Your task to perform on an android device: stop showing notifications on the lock screen Image 0: 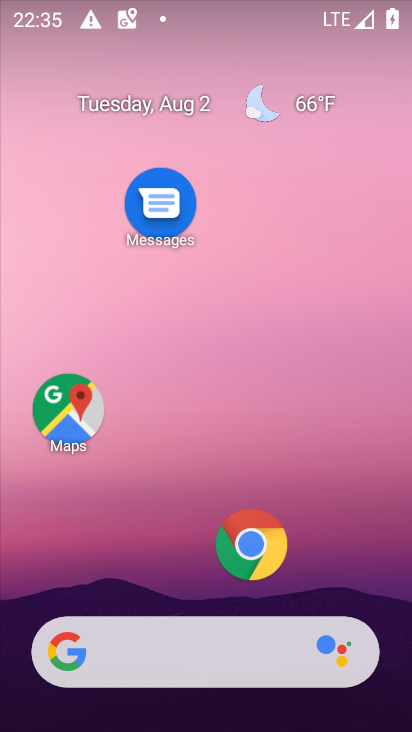
Step 0: drag from (221, 285) to (247, 125)
Your task to perform on an android device: stop showing notifications on the lock screen Image 1: 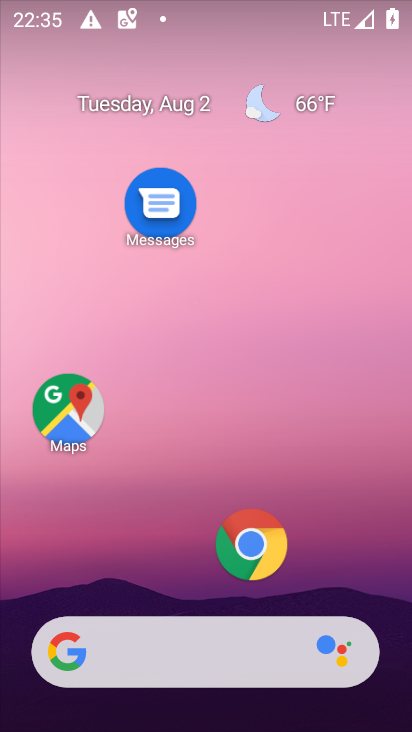
Step 1: drag from (191, 581) to (251, 172)
Your task to perform on an android device: stop showing notifications on the lock screen Image 2: 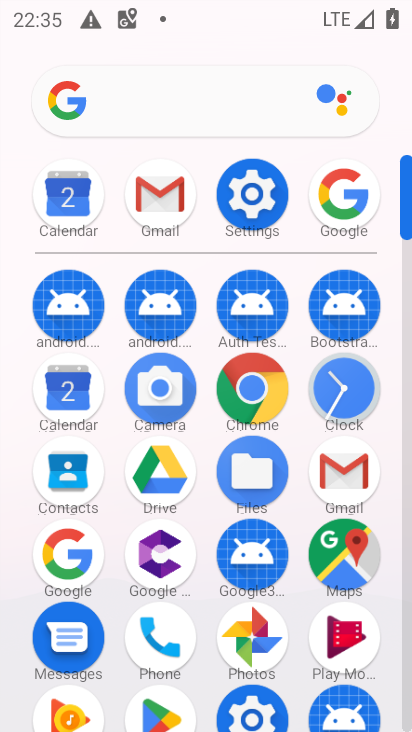
Step 2: click (264, 220)
Your task to perform on an android device: stop showing notifications on the lock screen Image 3: 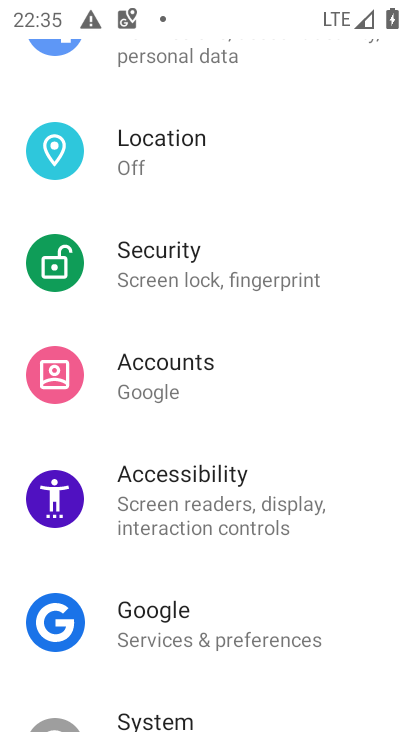
Step 3: drag from (191, 254) to (252, 685)
Your task to perform on an android device: stop showing notifications on the lock screen Image 4: 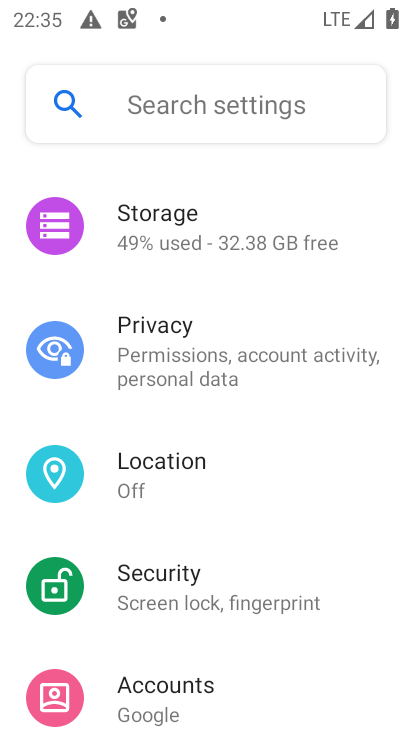
Step 4: drag from (228, 487) to (227, 248)
Your task to perform on an android device: stop showing notifications on the lock screen Image 5: 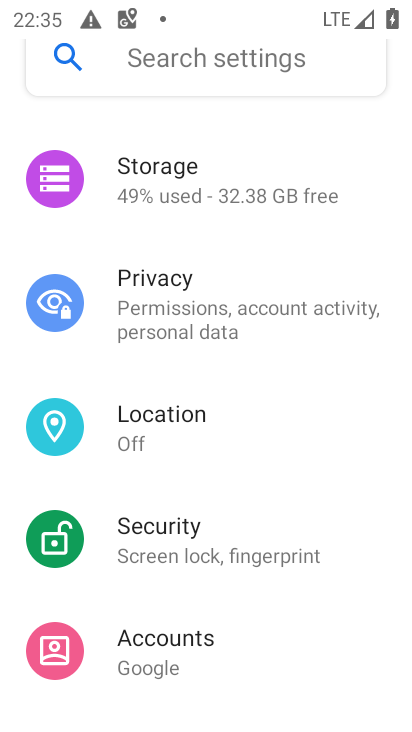
Step 5: drag from (247, 591) to (270, 235)
Your task to perform on an android device: stop showing notifications on the lock screen Image 6: 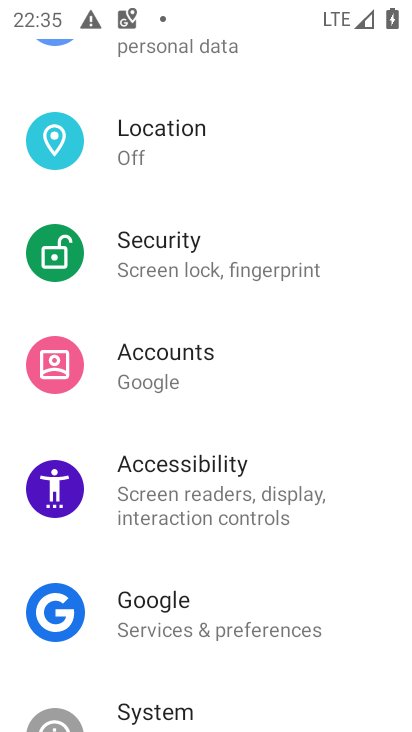
Step 6: drag from (170, 178) to (205, 663)
Your task to perform on an android device: stop showing notifications on the lock screen Image 7: 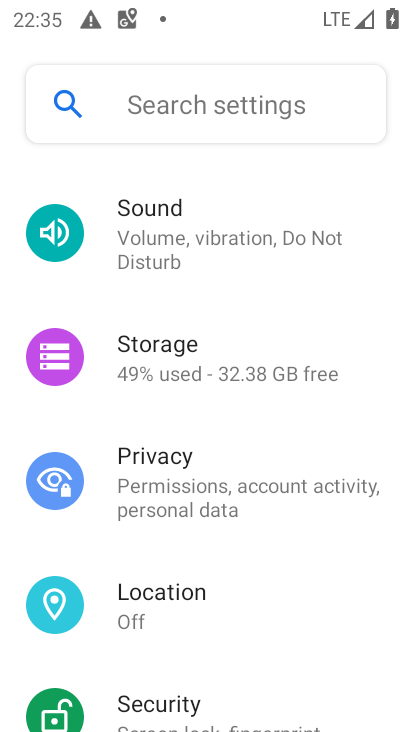
Step 7: drag from (259, 324) to (297, 688)
Your task to perform on an android device: stop showing notifications on the lock screen Image 8: 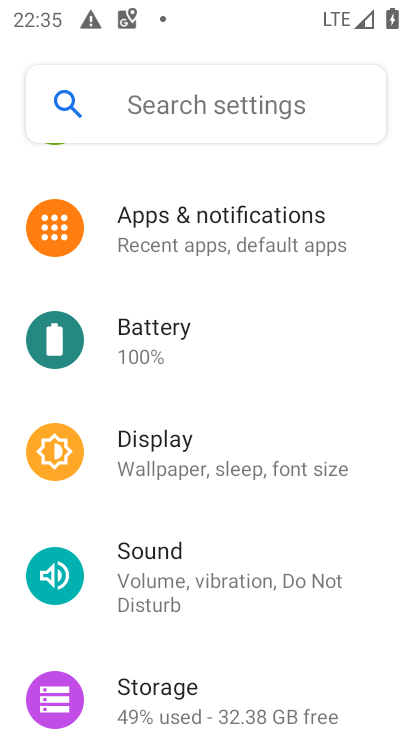
Step 8: click (253, 231)
Your task to perform on an android device: stop showing notifications on the lock screen Image 9: 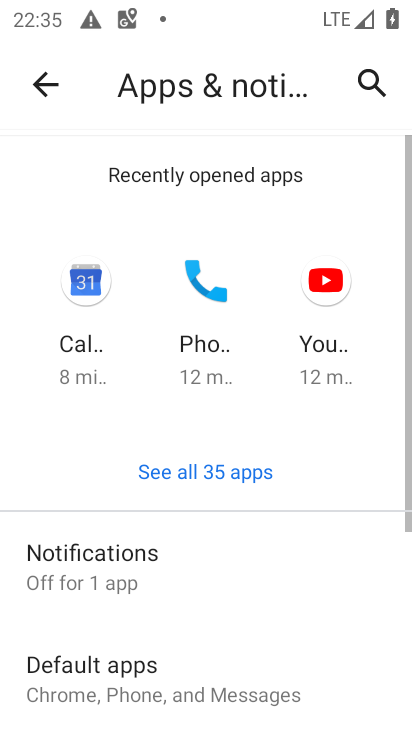
Step 9: click (203, 572)
Your task to perform on an android device: stop showing notifications on the lock screen Image 10: 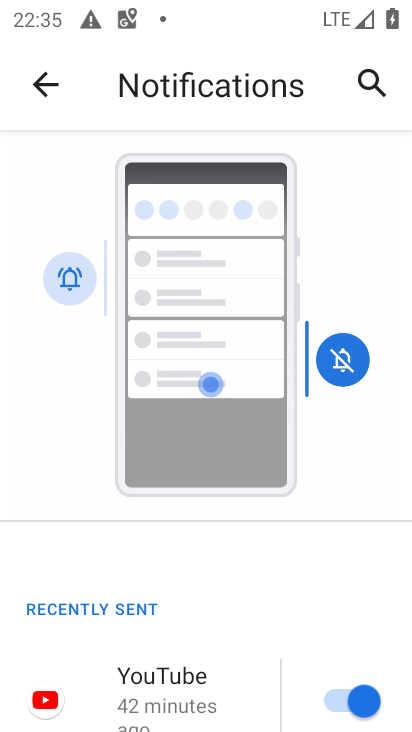
Step 10: drag from (207, 615) to (216, 172)
Your task to perform on an android device: stop showing notifications on the lock screen Image 11: 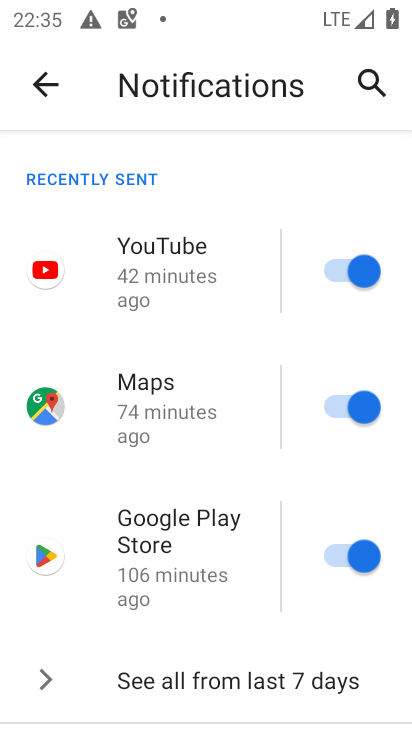
Step 11: drag from (240, 603) to (249, 234)
Your task to perform on an android device: stop showing notifications on the lock screen Image 12: 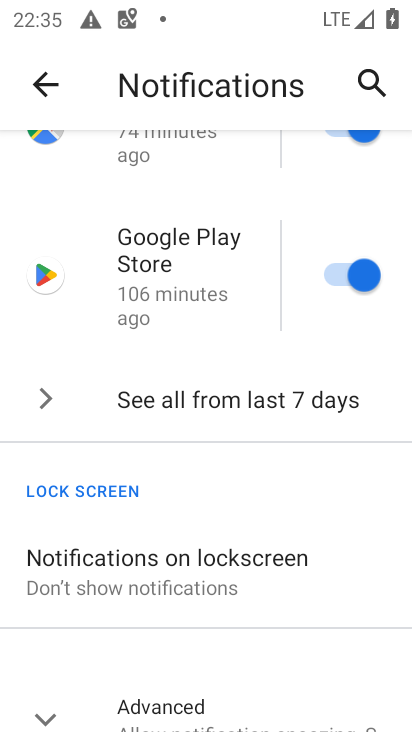
Step 12: click (255, 573)
Your task to perform on an android device: stop showing notifications on the lock screen Image 13: 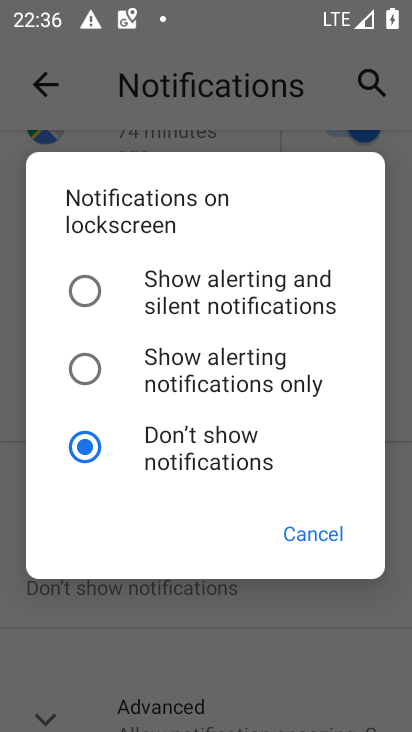
Step 13: task complete